Your task to perform on an android device: Check the news Image 0: 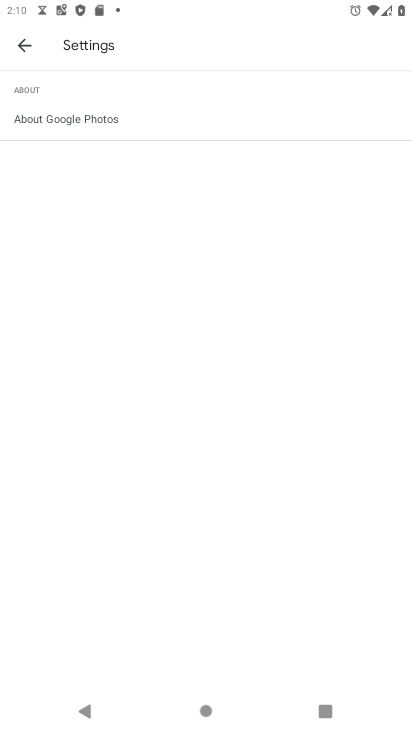
Step 0: press home button
Your task to perform on an android device: Check the news Image 1: 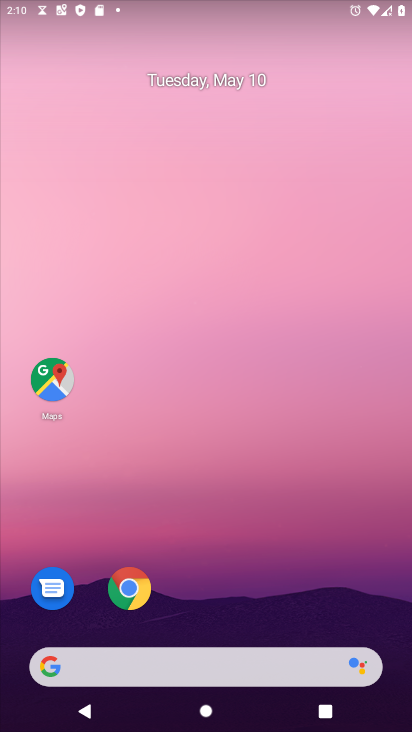
Step 1: drag from (311, 608) to (311, 258)
Your task to perform on an android device: Check the news Image 2: 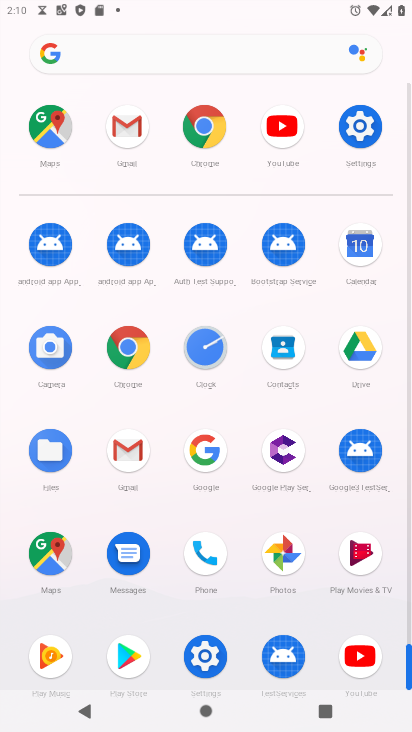
Step 2: click (121, 344)
Your task to perform on an android device: Check the news Image 3: 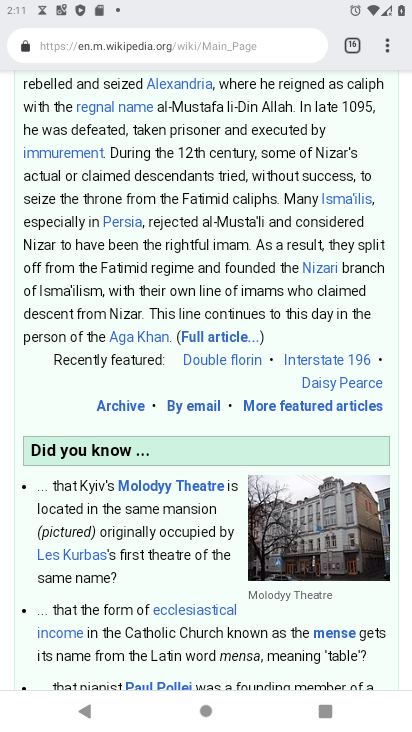
Step 3: click (378, 38)
Your task to perform on an android device: Check the news Image 4: 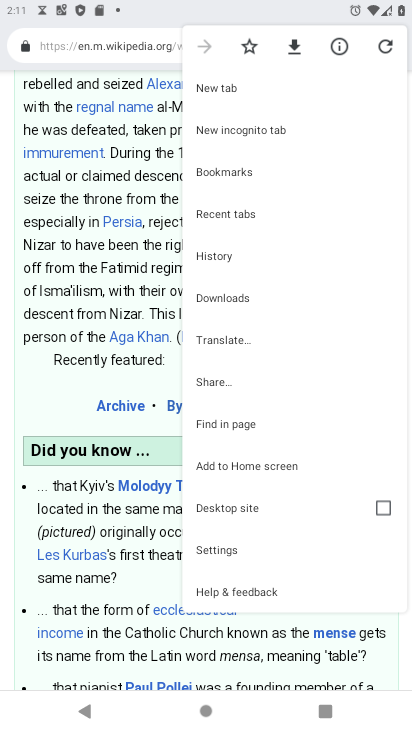
Step 4: click (214, 82)
Your task to perform on an android device: Check the news Image 5: 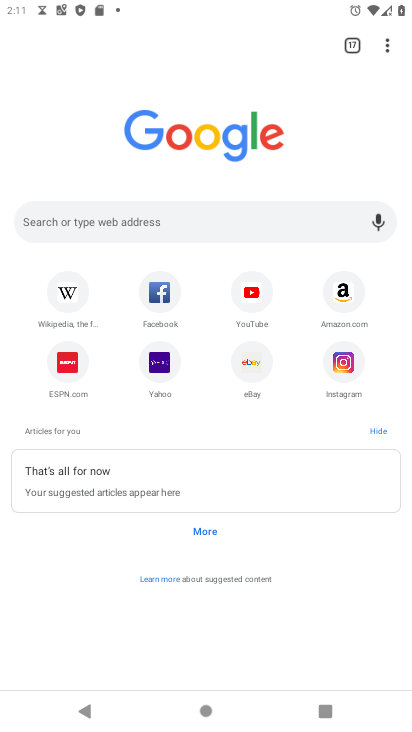
Step 5: click (184, 220)
Your task to perform on an android device: Check the news Image 6: 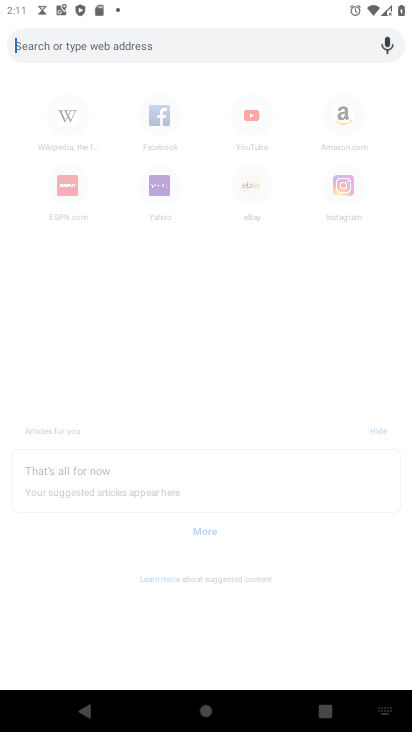
Step 6: type "Check the news"
Your task to perform on an android device: Check the news Image 7: 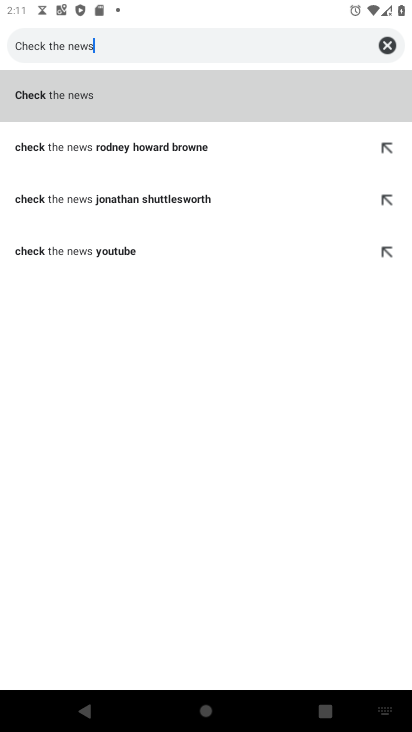
Step 7: click (101, 95)
Your task to perform on an android device: Check the news Image 8: 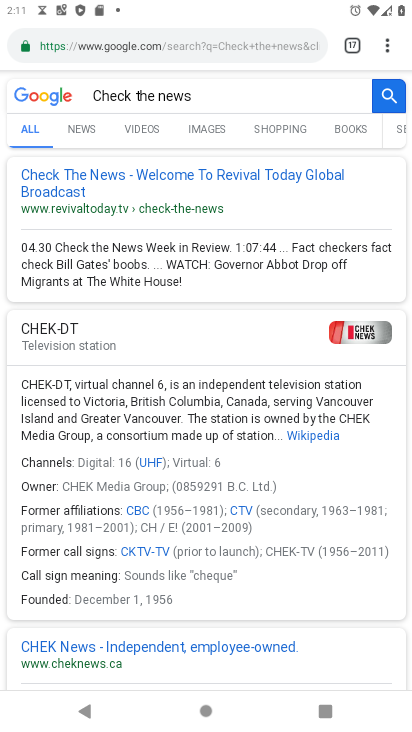
Step 8: task complete